Your task to perform on an android device: change text size in settings app Image 0: 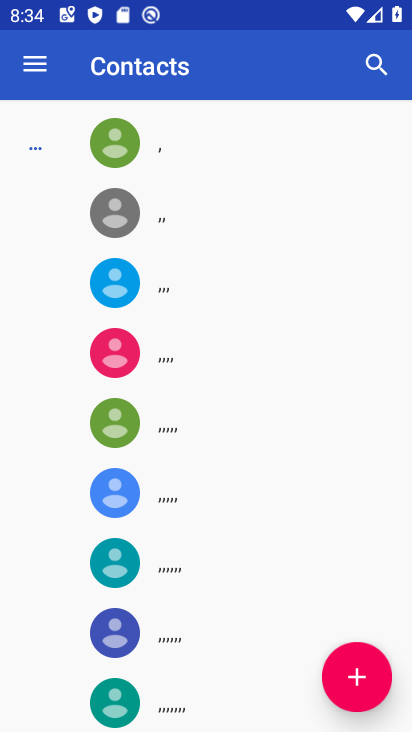
Step 0: press home button
Your task to perform on an android device: change text size in settings app Image 1: 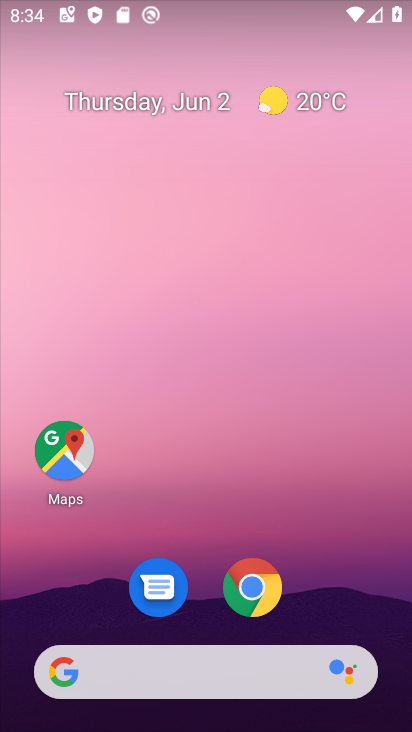
Step 1: drag from (191, 602) to (201, 39)
Your task to perform on an android device: change text size in settings app Image 2: 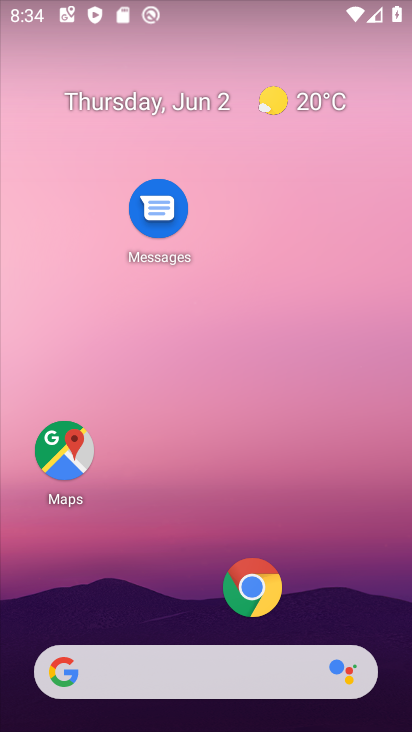
Step 2: drag from (179, 591) to (209, 61)
Your task to perform on an android device: change text size in settings app Image 3: 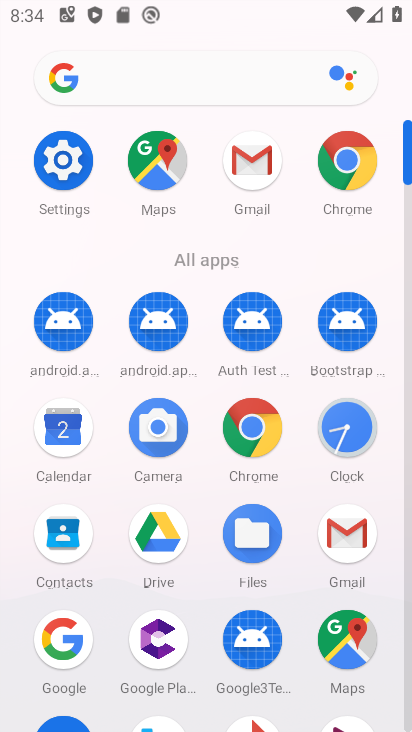
Step 3: click (49, 179)
Your task to perform on an android device: change text size in settings app Image 4: 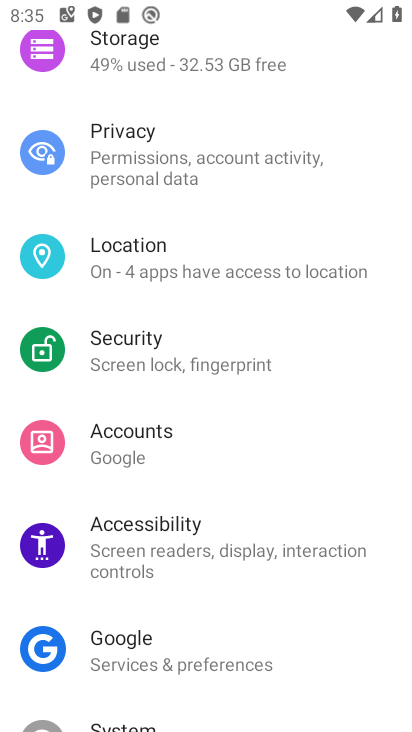
Step 4: drag from (162, 691) to (211, 452)
Your task to perform on an android device: change text size in settings app Image 5: 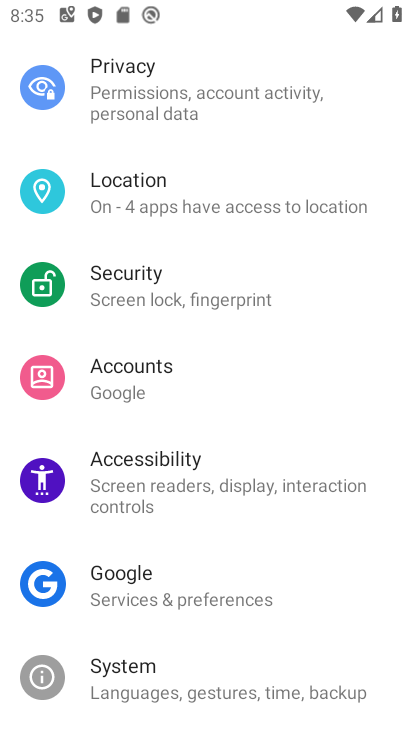
Step 5: drag from (182, 156) to (81, 677)
Your task to perform on an android device: change text size in settings app Image 6: 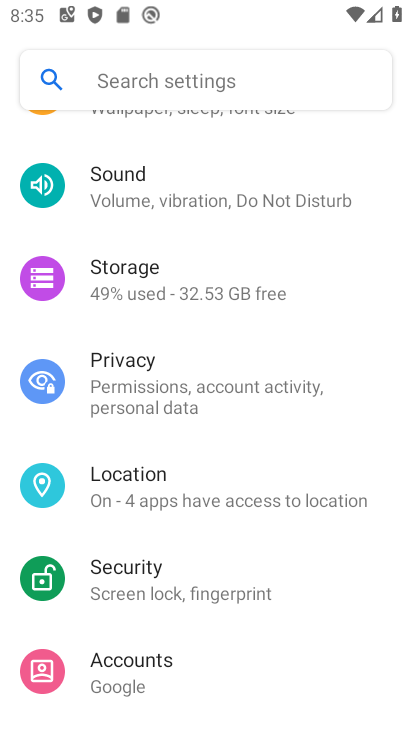
Step 6: drag from (232, 153) to (248, 589)
Your task to perform on an android device: change text size in settings app Image 7: 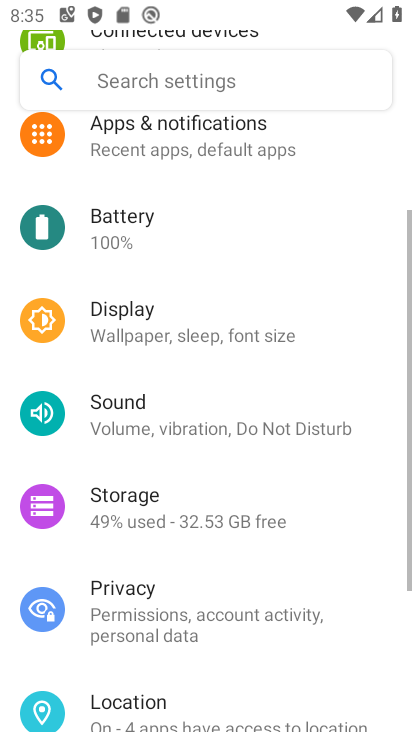
Step 7: click (248, 589)
Your task to perform on an android device: change text size in settings app Image 8: 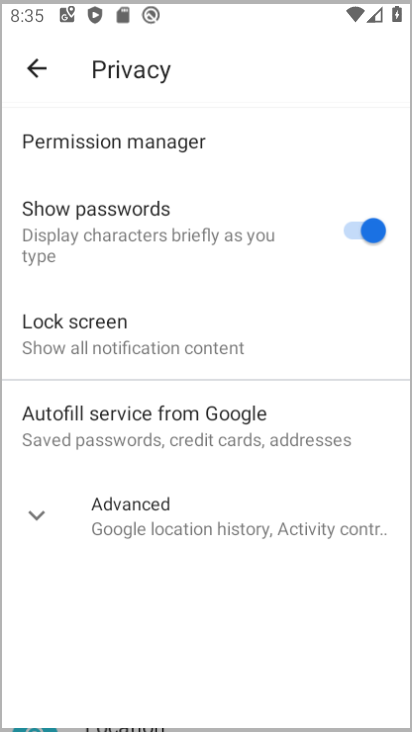
Step 8: click (175, 327)
Your task to perform on an android device: change text size in settings app Image 9: 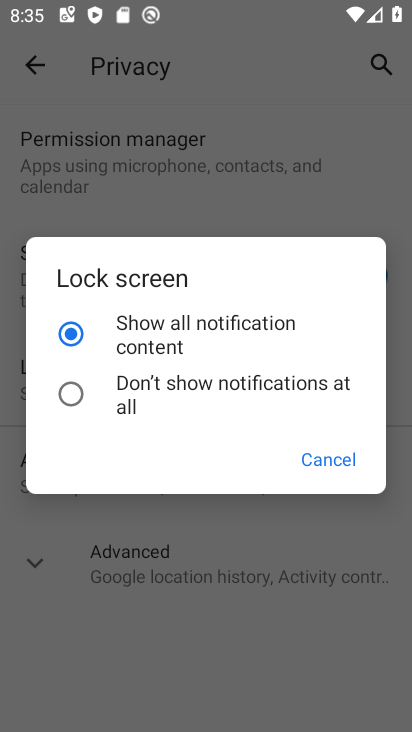
Step 9: click (331, 466)
Your task to perform on an android device: change text size in settings app Image 10: 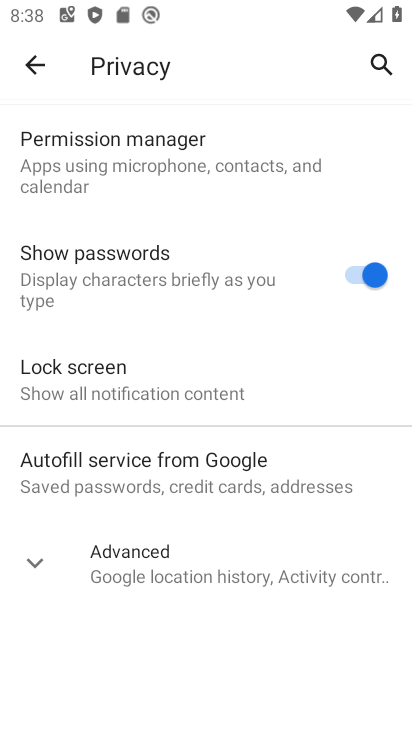
Step 10: task complete